Your task to perform on an android device: open a bookmark in the chrome app Image 0: 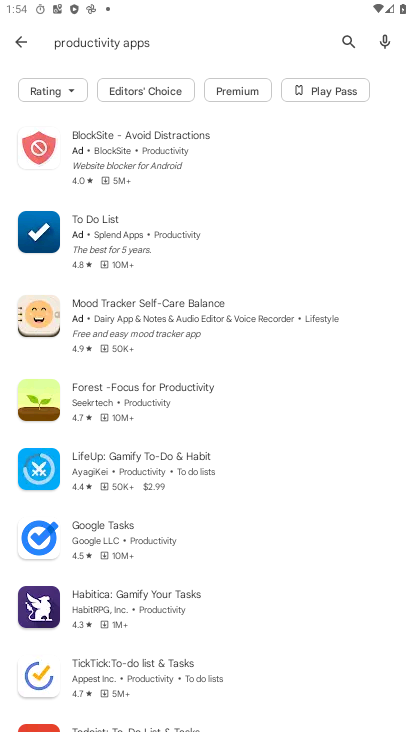
Step 0: press home button
Your task to perform on an android device: open a bookmark in the chrome app Image 1: 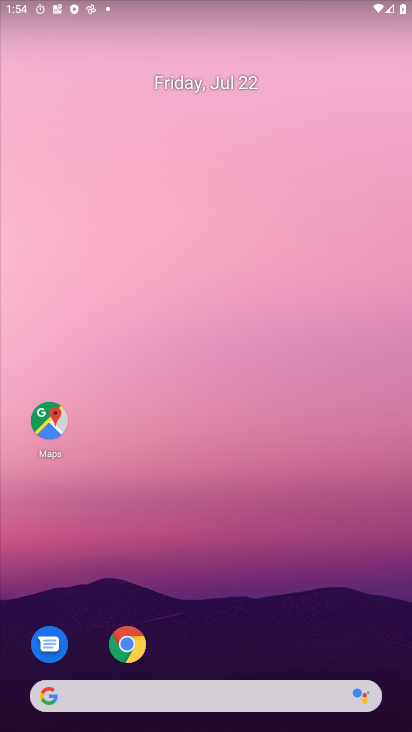
Step 1: drag from (184, 697) to (262, 274)
Your task to perform on an android device: open a bookmark in the chrome app Image 2: 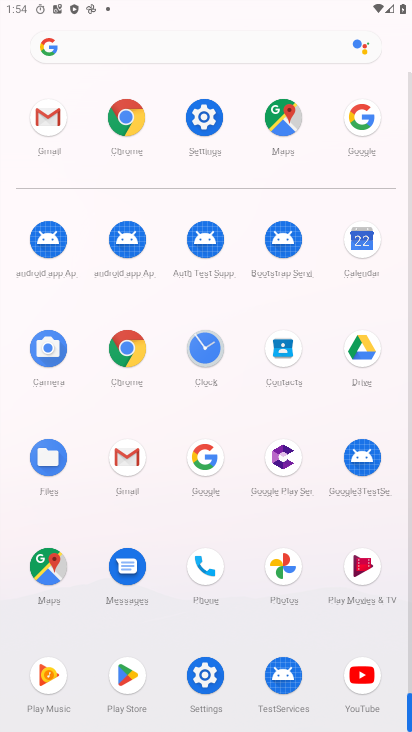
Step 2: click (130, 369)
Your task to perform on an android device: open a bookmark in the chrome app Image 3: 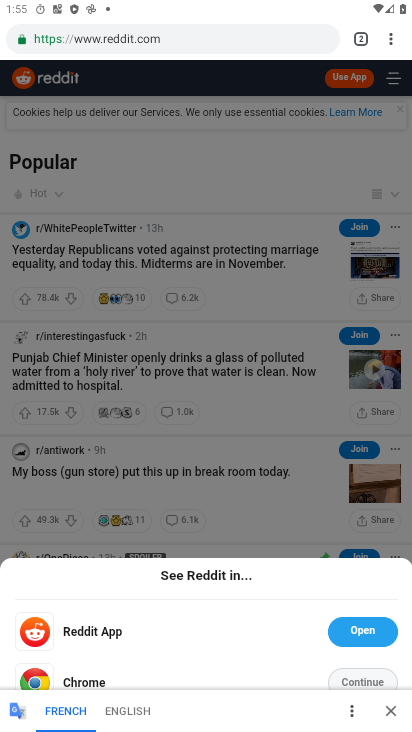
Step 3: click (396, 37)
Your task to perform on an android device: open a bookmark in the chrome app Image 4: 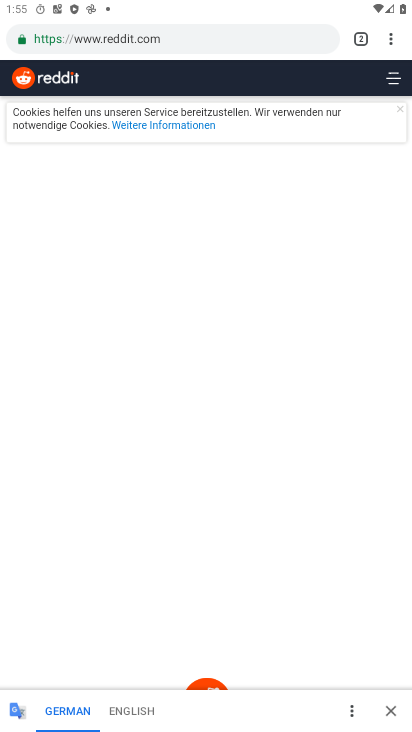
Step 4: click (394, 38)
Your task to perform on an android device: open a bookmark in the chrome app Image 5: 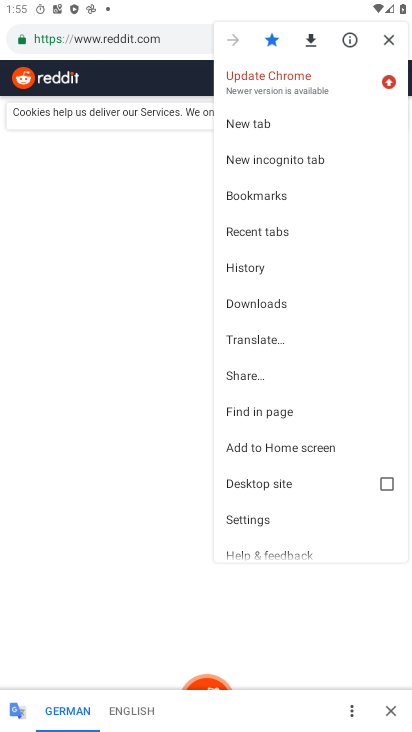
Step 5: click (270, 196)
Your task to perform on an android device: open a bookmark in the chrome app Image 6: 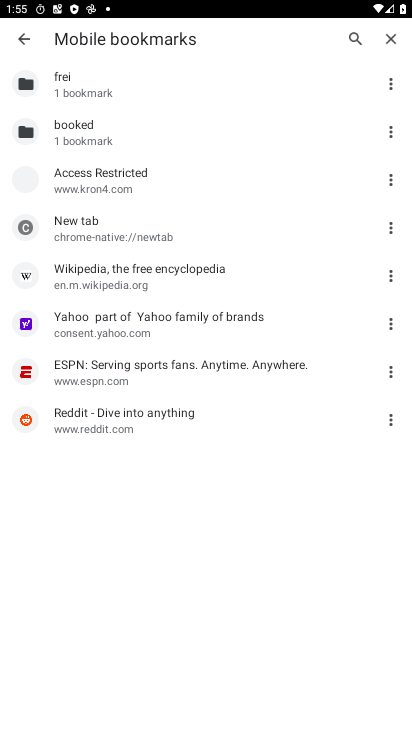
Step 6: click (206, 321)
Your task to perform on an android device: open a bookmark in the chrome app Image 7: 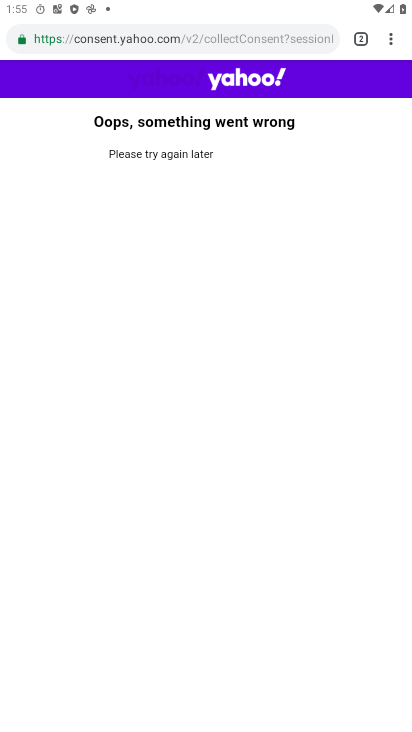
Step 7: task complete